Your task to perform on an android device: open chrome privacy settings Image 0: 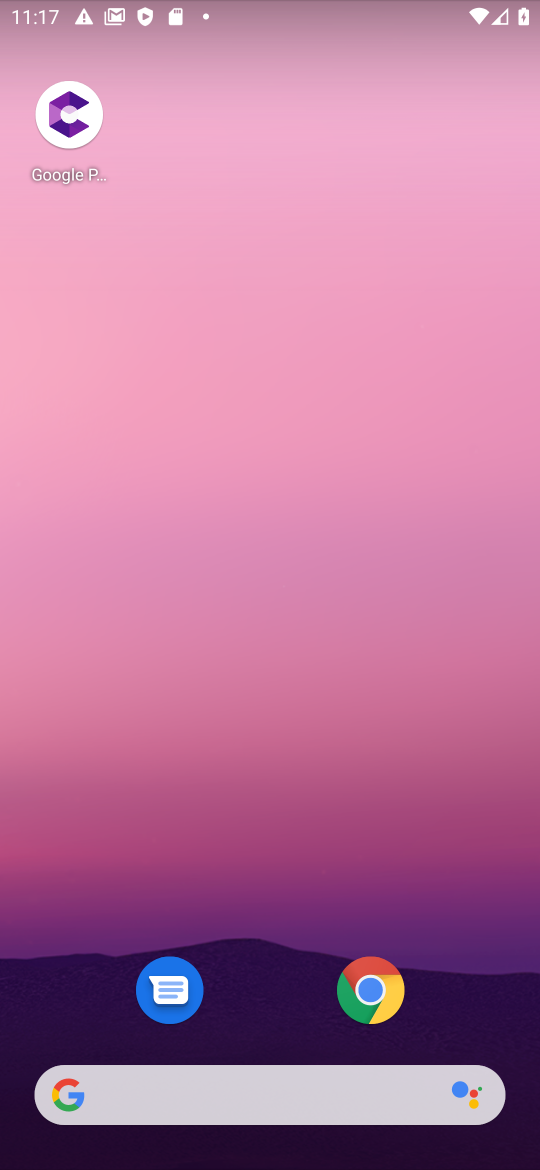
Step 0: click (387, 972)
Your task to perform on an android device: open chrome privacy settings Image 1: 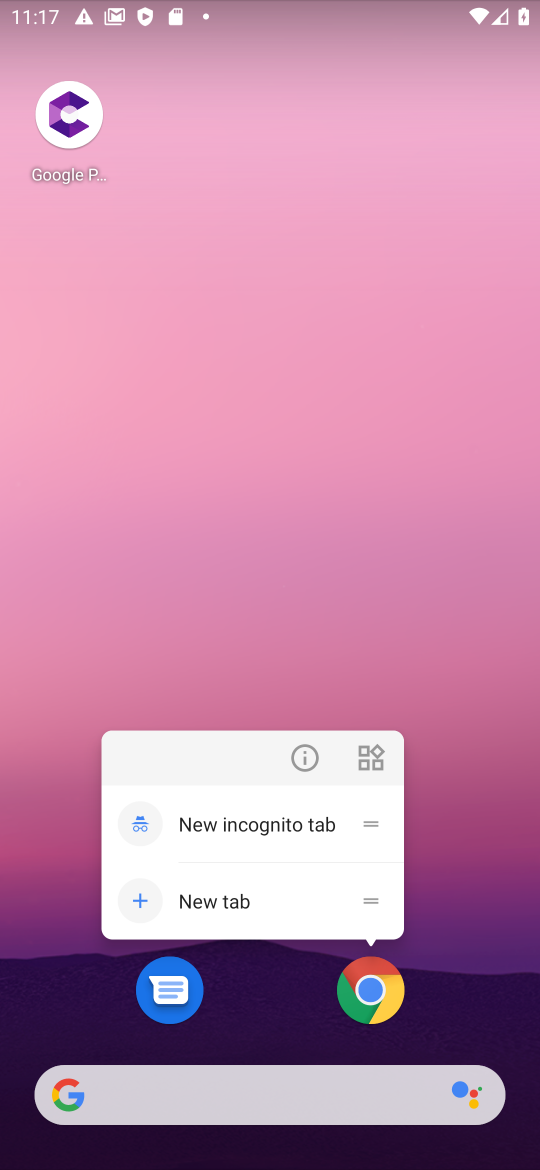
Step 1: click (386, 971)
Your task to perform on an android device: open chrome privacy settings Image 2: 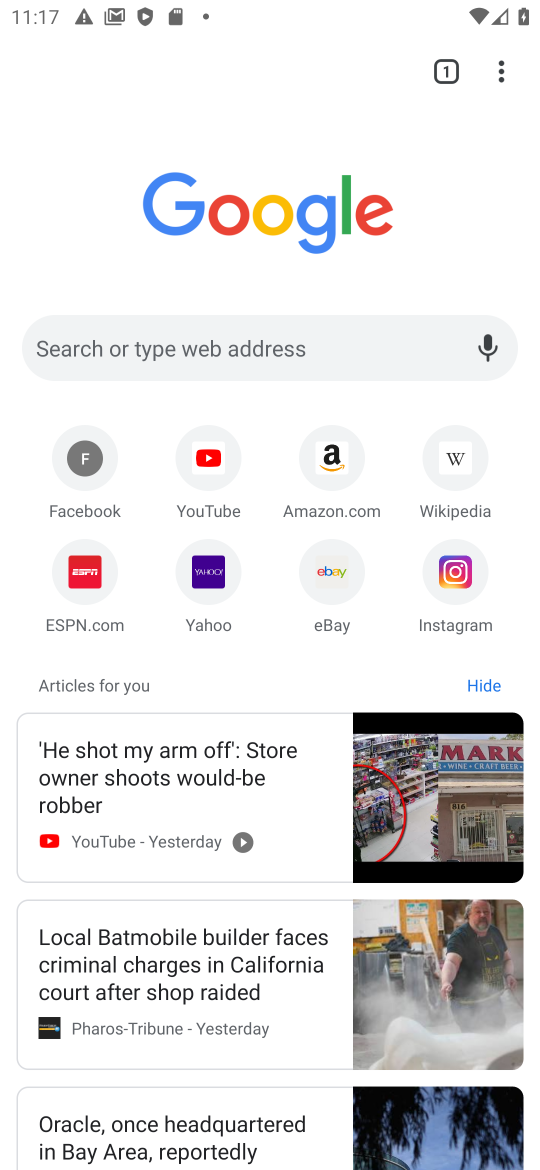
Step 2: click (497, 64)
Your task to perform on an android device: open chrome privacy settings Image 3: 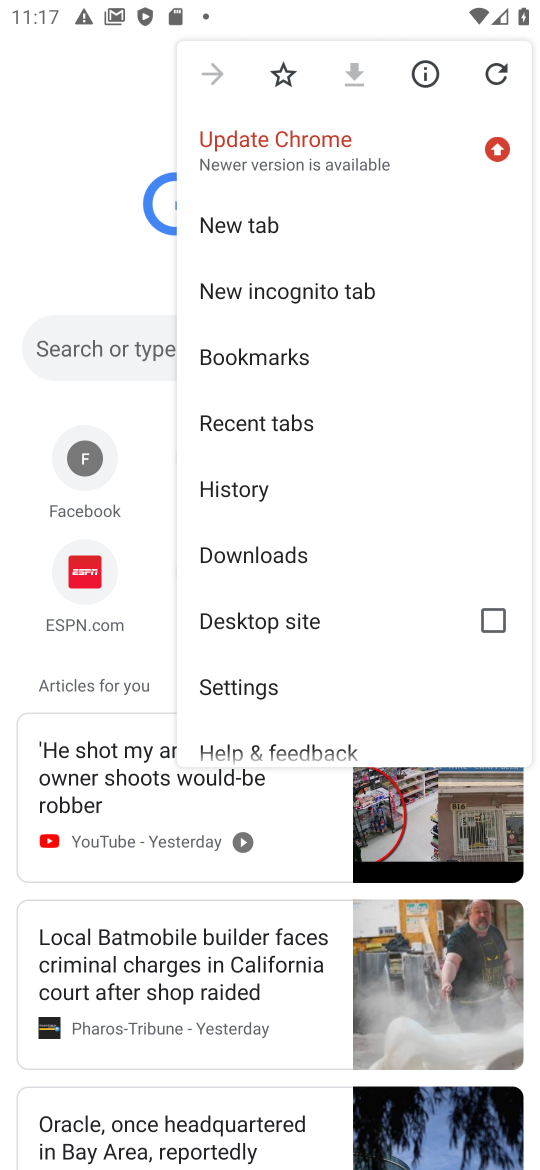
Step 3: click (257, 697)
Your task to perform on an android device: open chrome privacy settings Image 4: 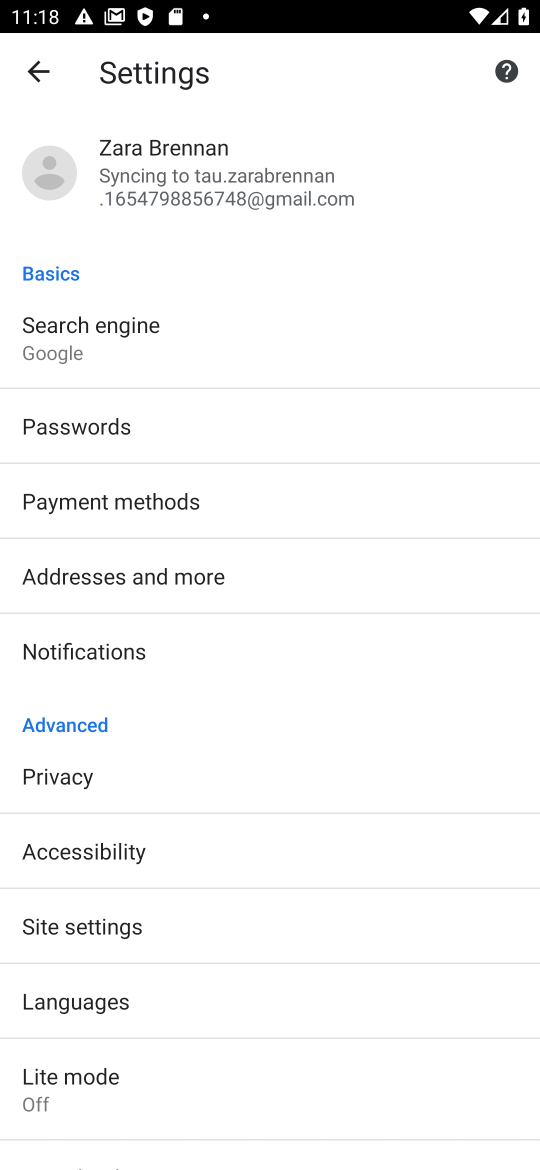
Step 4: click (66, 784)
Your task to perform on an android device: open chrome privacy settings Image 5: 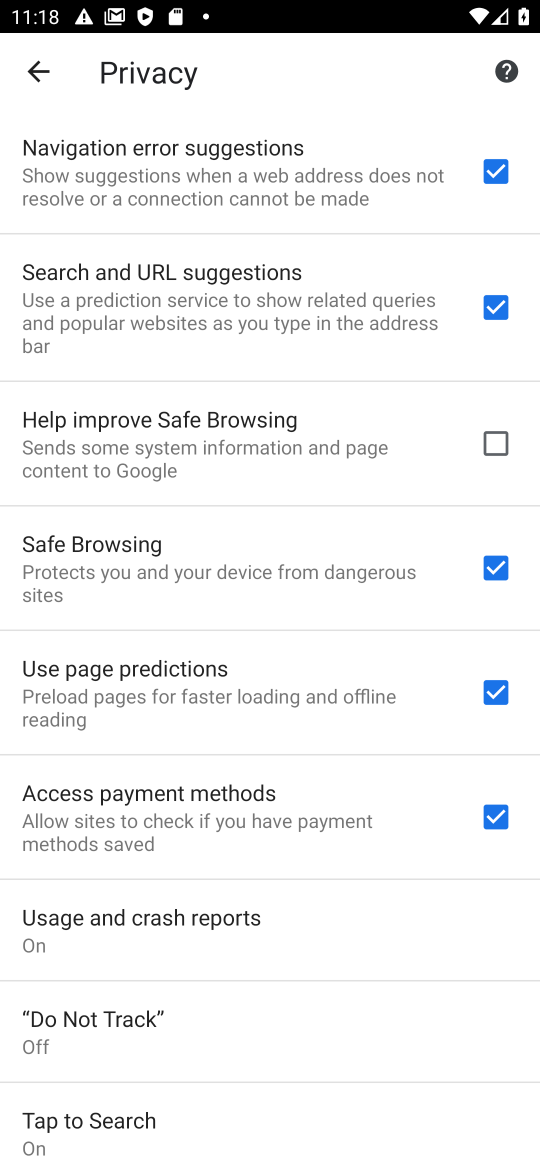
Step 5: task complete